Your task to perform on an android device: turn notification dots on Image 0: 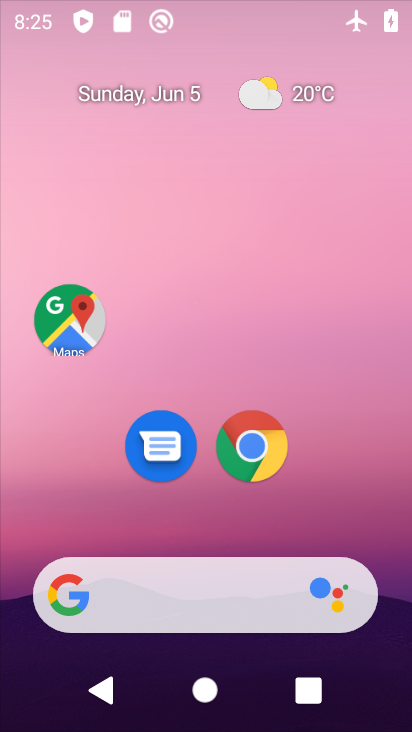
Step 0: drag from (201, 536) to (209, 238)
Your task to perform on an android device: turn notification dots on Image 1: 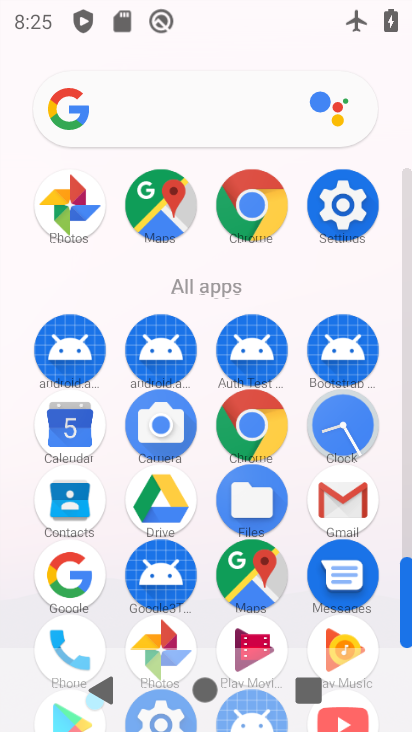
Step 1: click (327, 208)
Your task to perform on an android device: turn notification dots on Image 2: 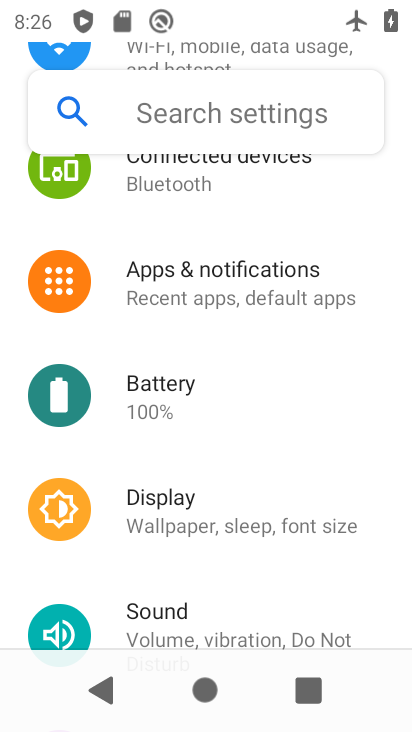
Step 2: click (286, 271)
Your task to perform on an android device: turn notification dots on Image 3: 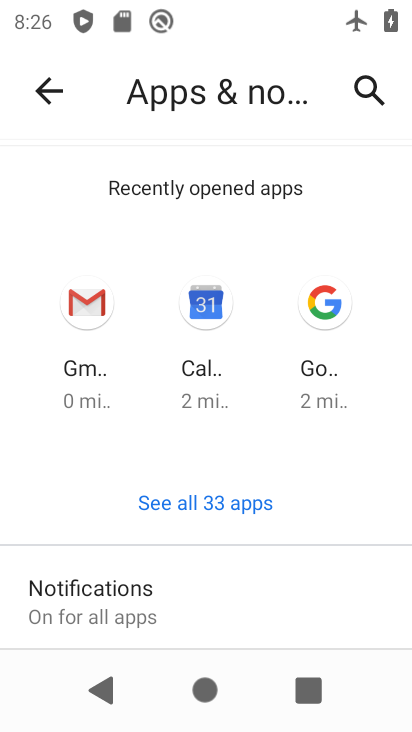
Step 3: click (123, 612)
Your task to perform on an android device: turn notification dots on Image 4: 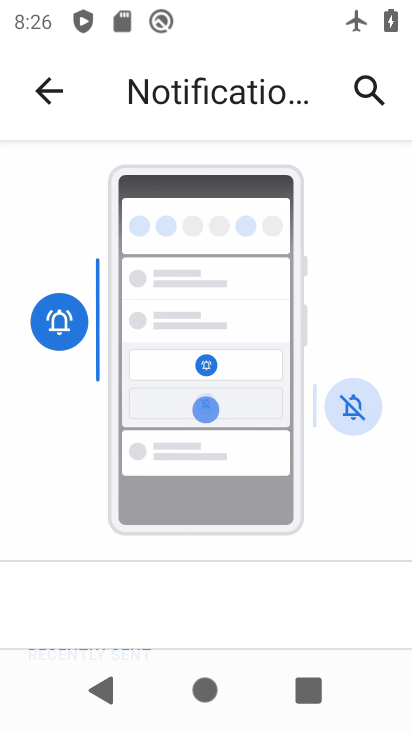
Step 4: drag from (239, 643) to (251, 206)
Your task to perform on an android device: turn notification dots on Image 5: 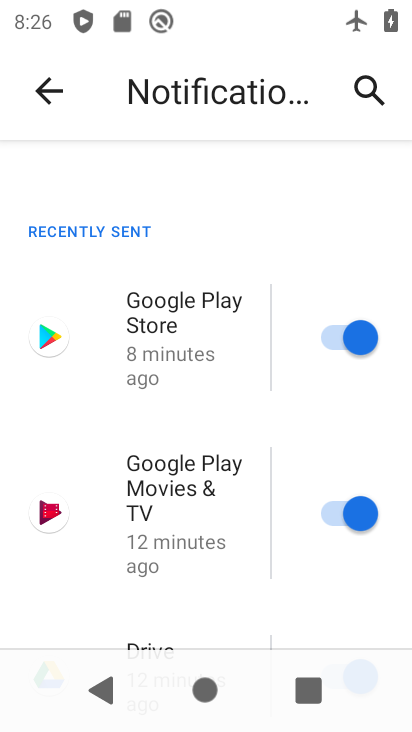
Step 5: drag from (221, 554) to (222, 244)
Your task to perform on an android device: turn notification dots on Image 6: 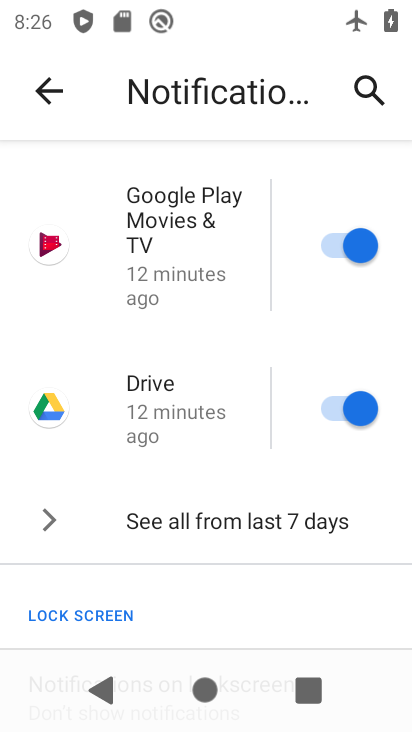
Step 6: drag from (202, 568) to (209, 206)
Your task to perform on an android device: turn notification dots on Image 7: 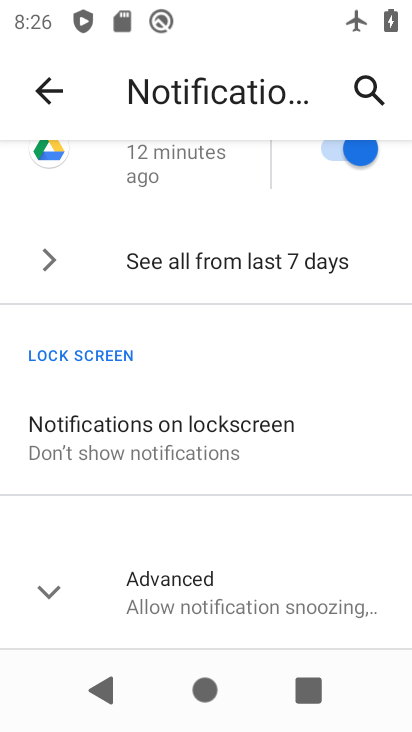
Step 7: click (184, 592)
Your task to perform on an android device: turn notification dots on Image 8: 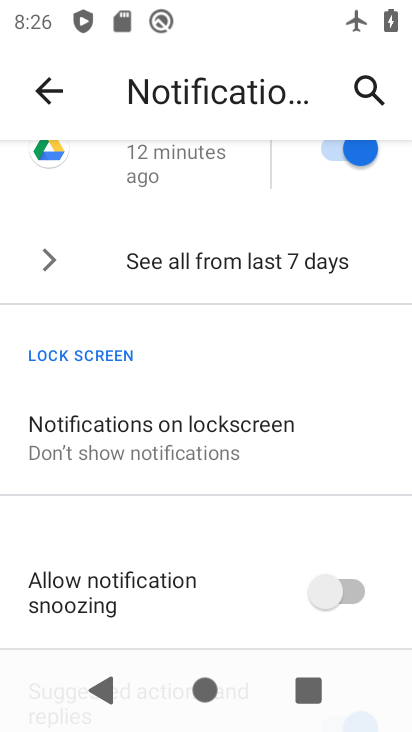
Step 8: task complete